Your task to perform on an android device: turn pop-ups on in chrome Image 0: 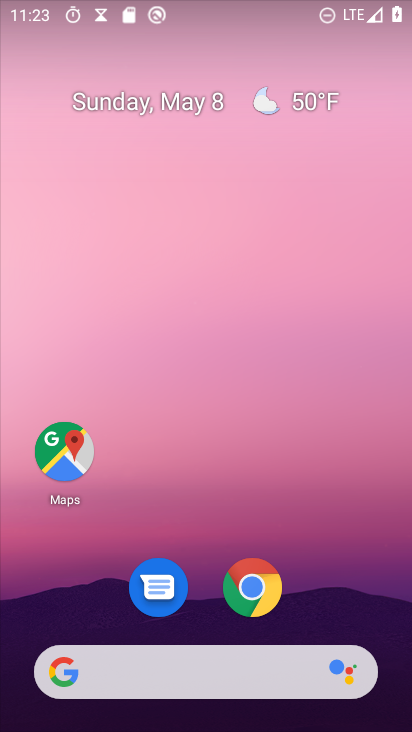
Step 0: click (249, 587)
Your task to perform on an android device: turn pop-ups on in chrome Image 1: 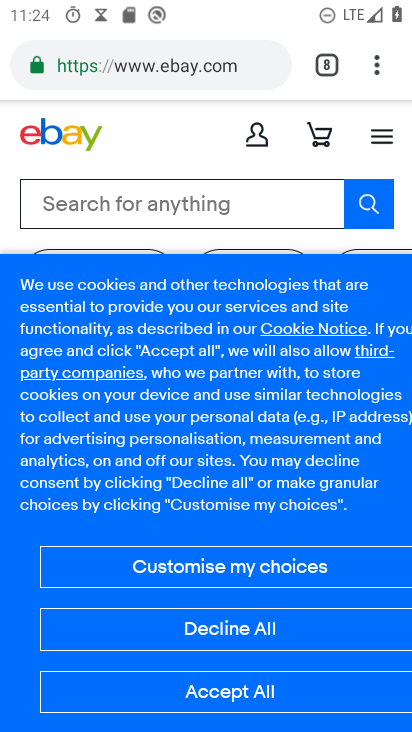
Step 1: drag from (375, 66) to (176, 634)
Your task to perform on an android device: turn pop-ups on in chrome Image 2: 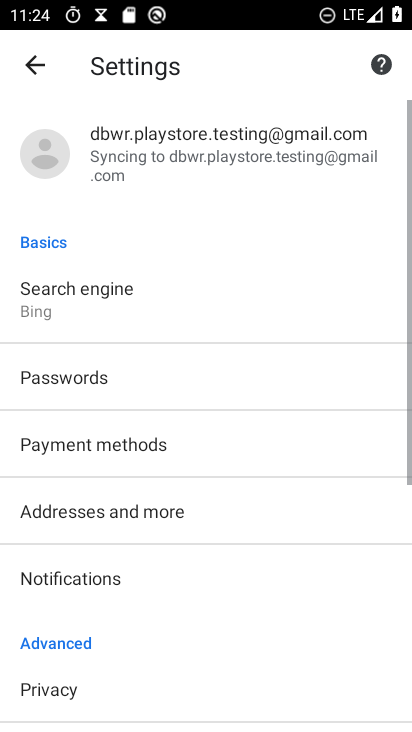
Step 2: drag from (158, 668) to (194, 414)
Your task to perform on an android device: turn pop-ups on in chrome Image 3: 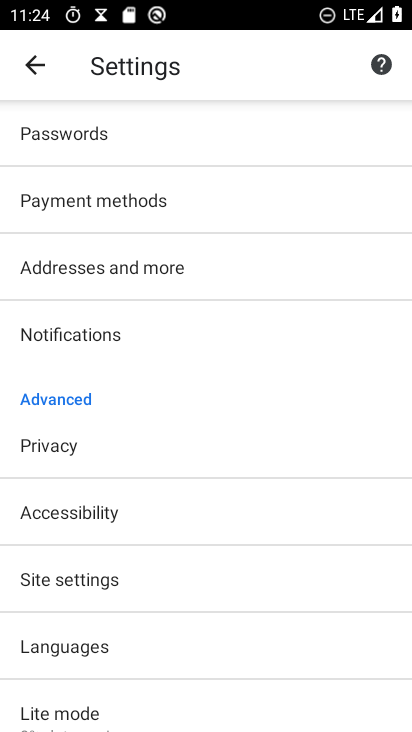
Step 3: click (79, 579)
Your task to perform on an android device: turn pop-ups on in chrome Image 4: 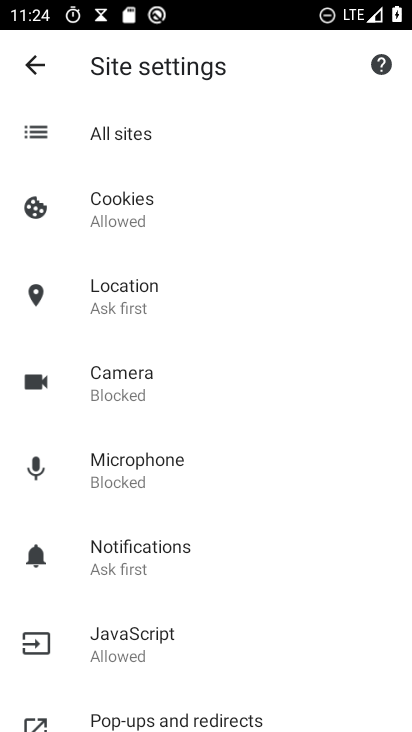
Step 4: click (191, 718)
Your task to perform on an android device: turn pop-ups on in chrome Image 5: 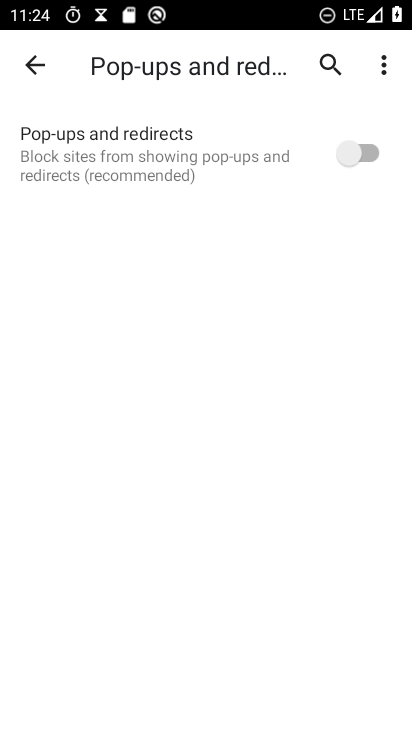
Step 5: click (355, 159)
Your task to perform on an android device: turn pop-ups on in chrome Image 6: 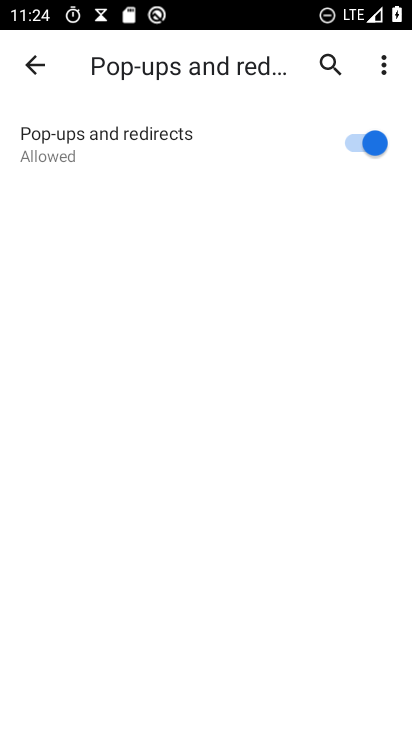
Step 6: task complete